Your task to perform on an android device: change the clock display to show seconds Image 0: 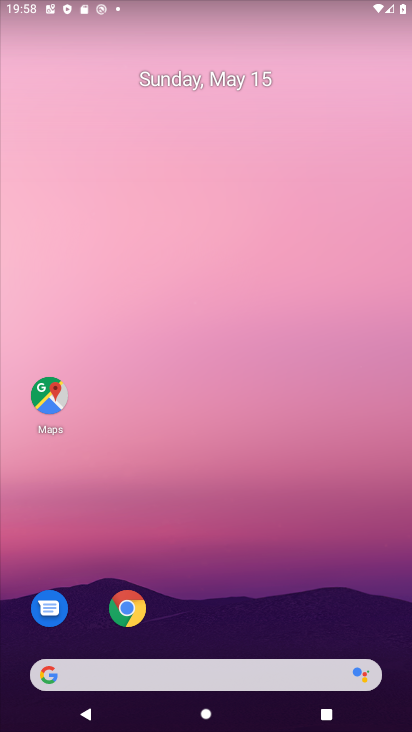
Step 0: drag from (235, 615) to (299, 137)
Your task to perform on an android device: change the clock display to show seconds Image 1: 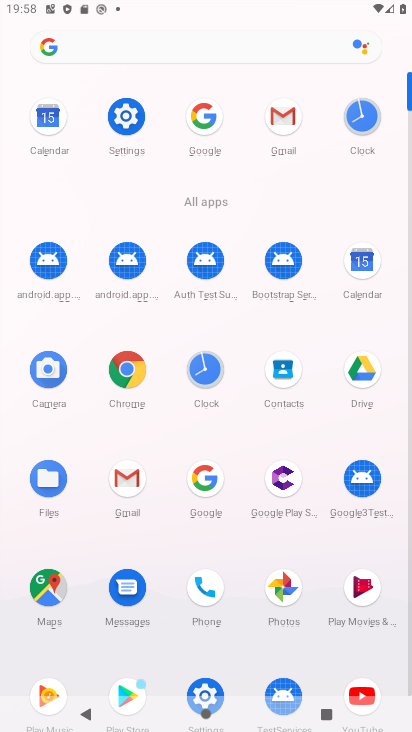
Step 1: click (368, 118)
Your task to perform on an android device: change the clock display to show seconds Image 2: 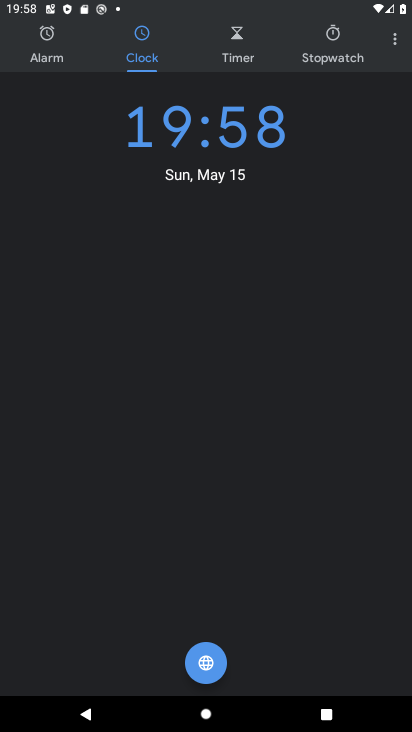
Step 2: click (399, 40)
Your task to perform on an android device: change the clock display to show seconds Image 3: 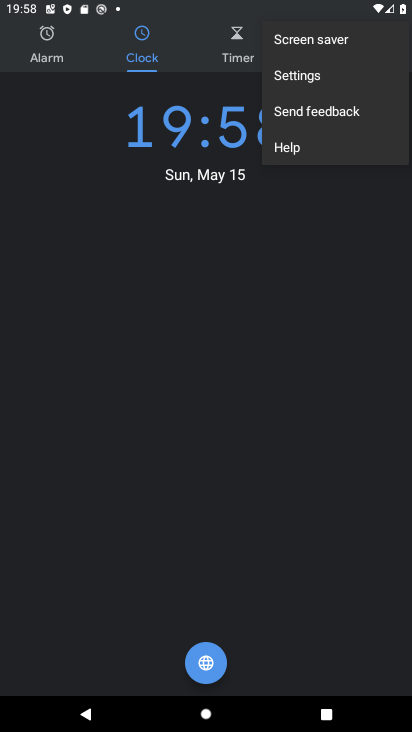
Step 3: click (324, 80)
Your task to perform on an android device: change the clock display to show seconds Image 4: 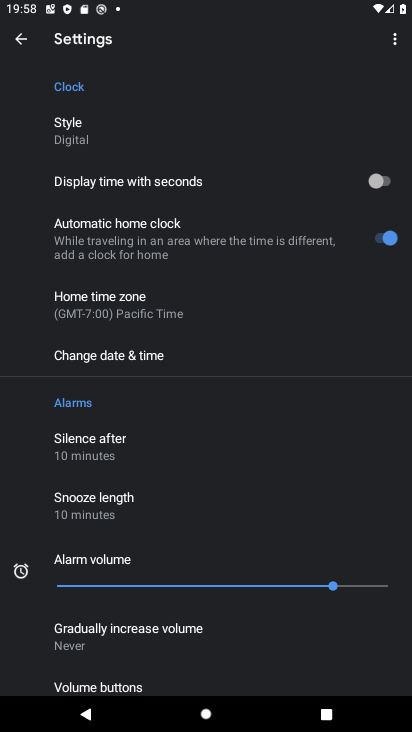
Step 4: click (376, 183)
Your task to perform on an android device: change the clock display to show seconds Image 5: 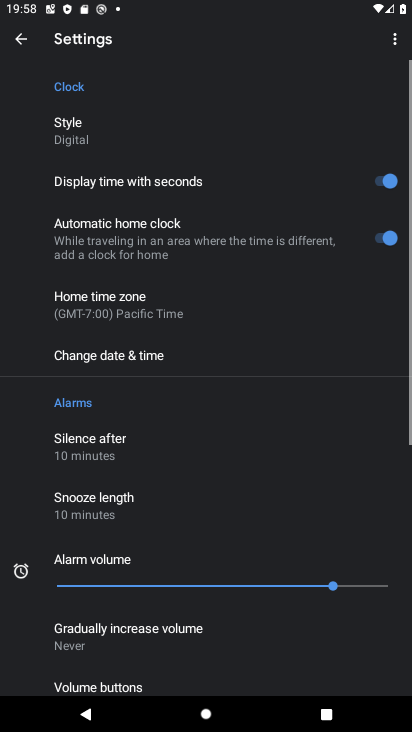
Step 5: task complete